Your task to perform on an android device: Add bose soundsport free to the cart on costco.com Image 0: 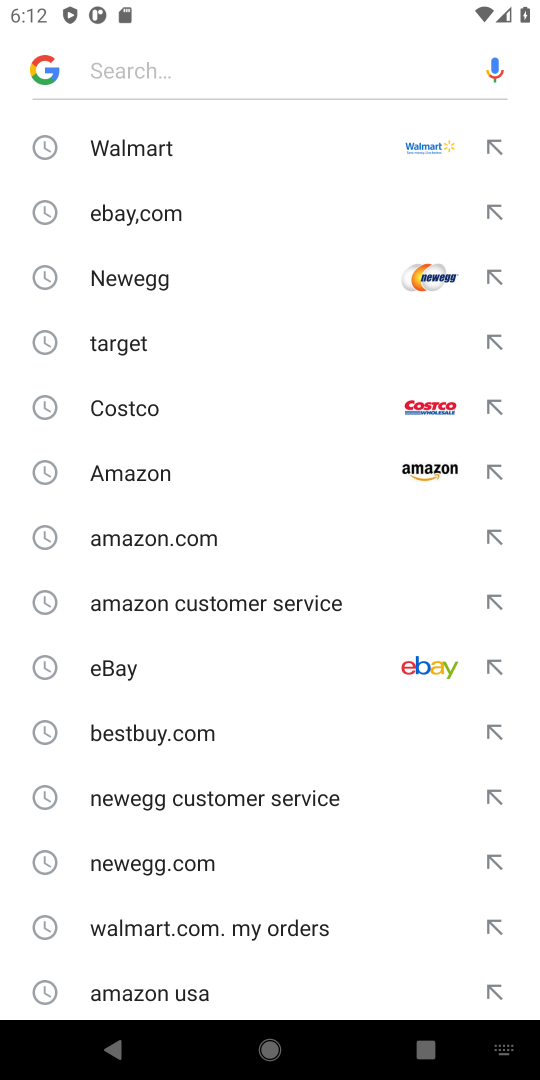
Step 0: press home button
Your task to perform on an android device: Add bose soundsport free to the cart on costco.com Image 1: 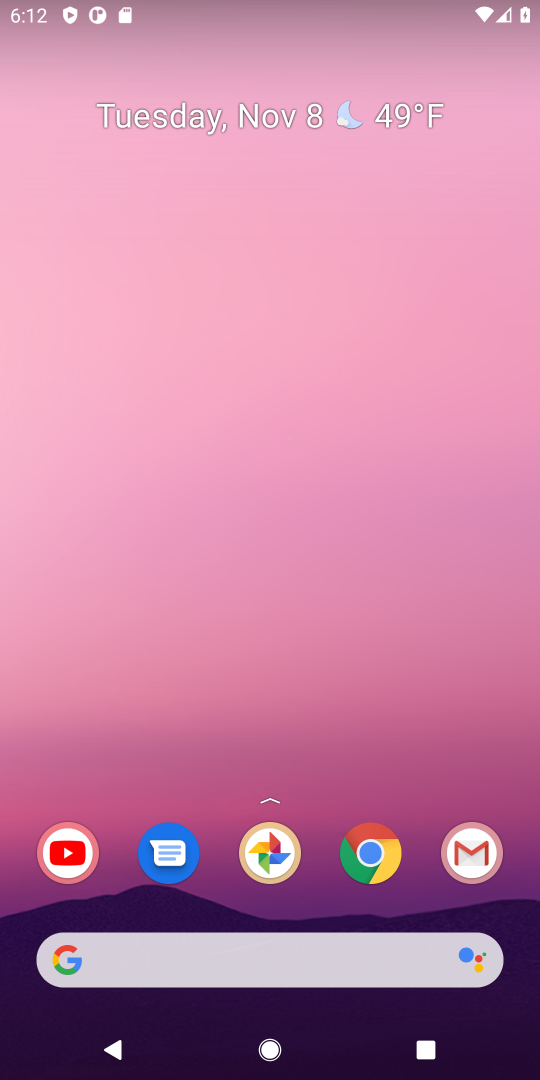
Step 1: click (373, 851)
Your task to perform on an android device: Add bose soundsport free to the cart on costco.com Image 2: 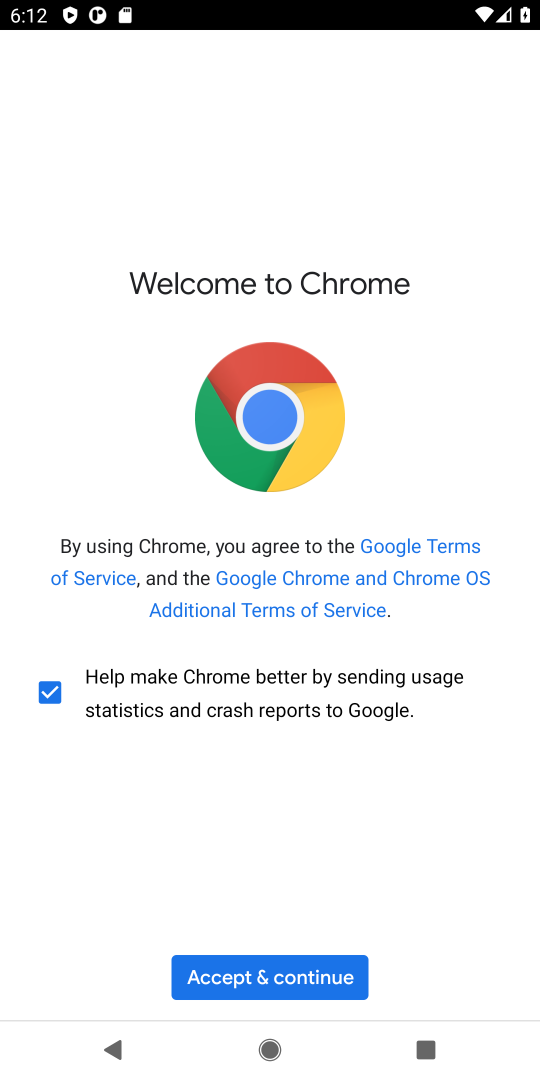
Step 2: click (273, 986)
Your task to perform on an android device: Add bose soundsport free to the cart on costco.com Image 3: 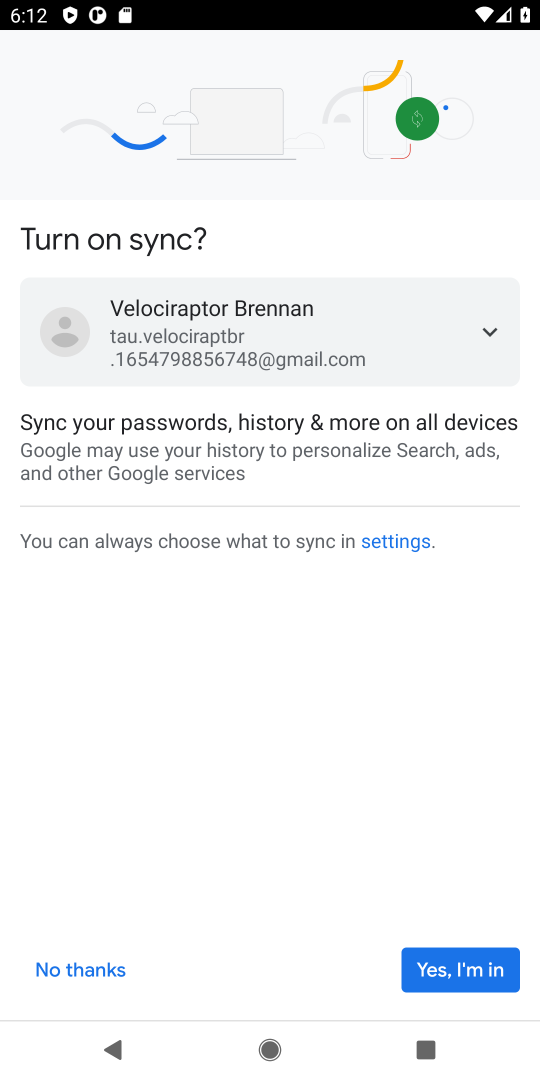
Step 3: click (461, 970)
Your task to perform on an android device: Add bose soundsport free to the cart on costco.com Image 4: 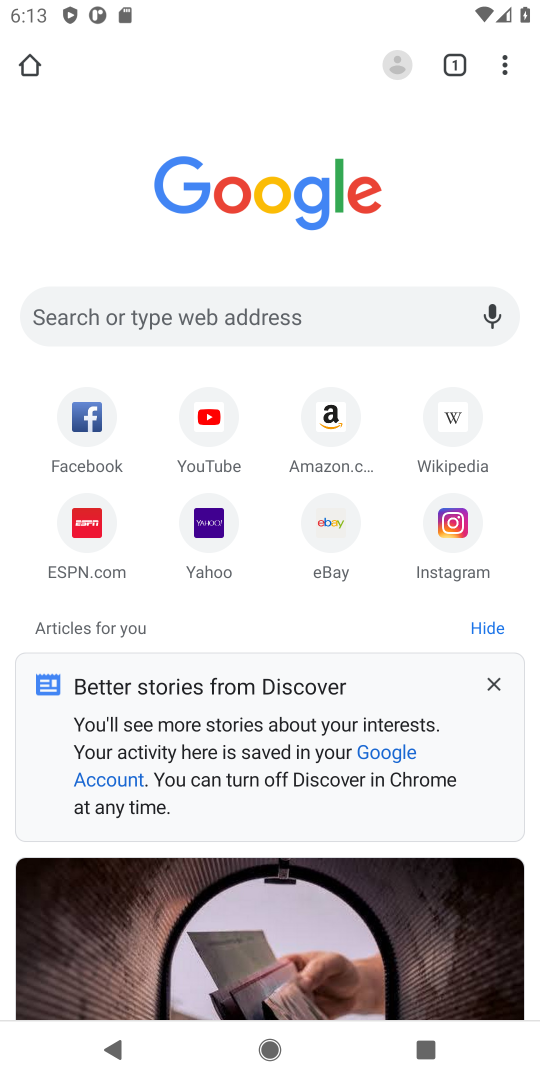
Step 4: click (369, 313)
Your task to perform on an android device: Add bose soundsport free to the cart on costco.com Image 5: 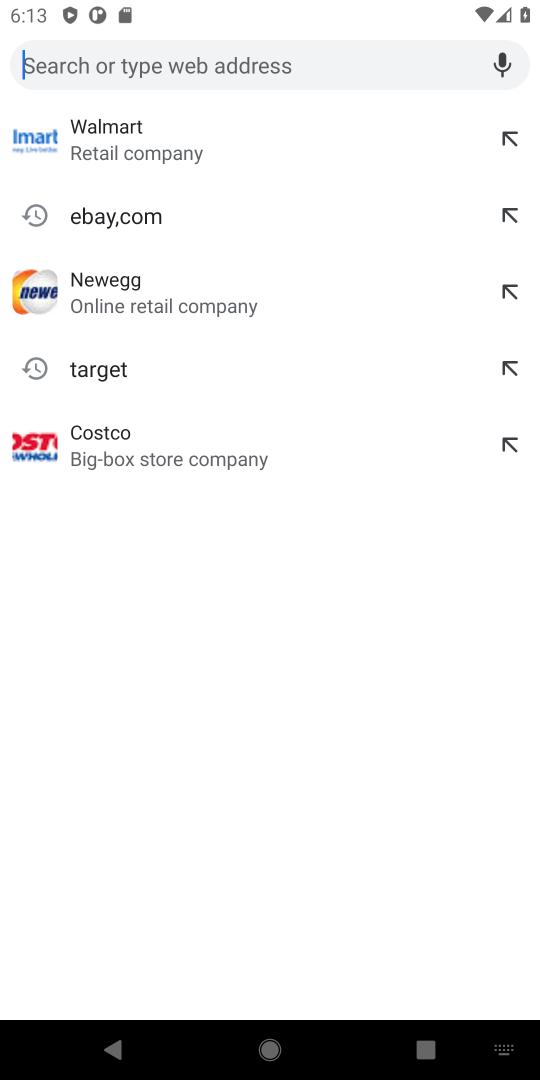
Step 5: type "costco.com"
Your task to perform on an android device: Add bose soundsport free to the cart on costco.com Image 6: 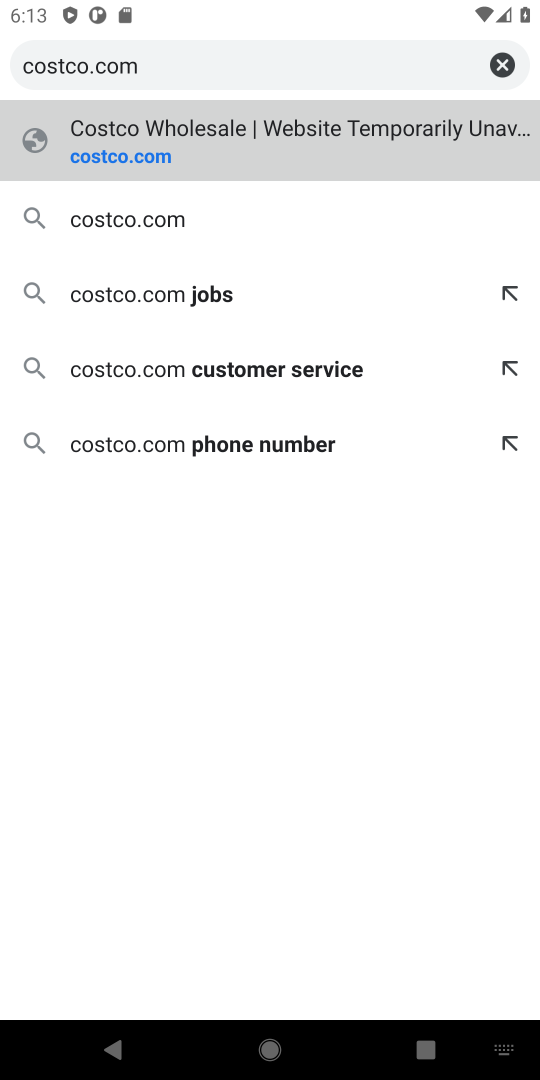
Step 6: click (174, 220)
Your task to perform on an android device: Add bose soundsport free to the cart on costco.com Image 7: 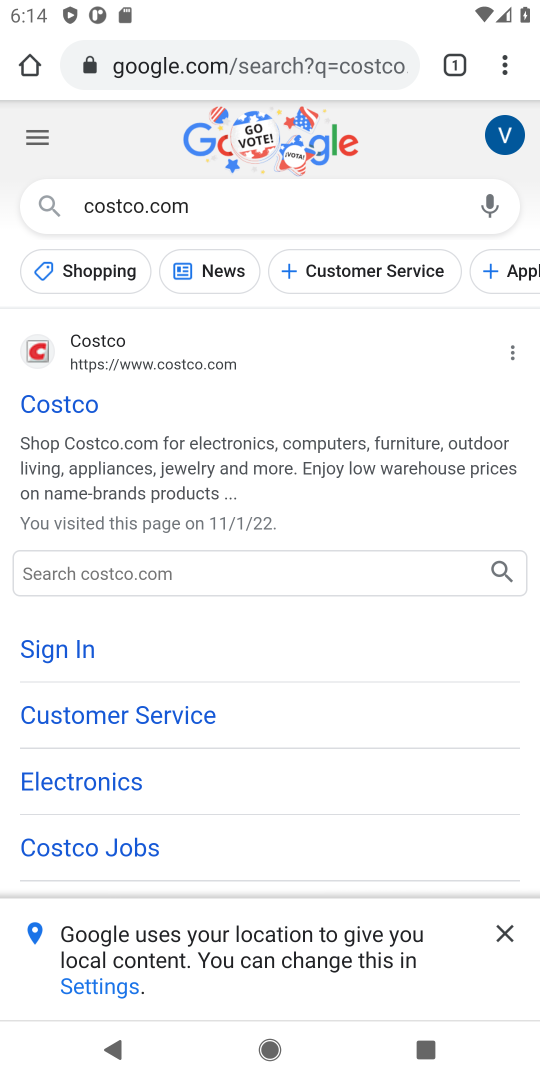
Step 7: click (115, 365)
Your task to perform on an android device: Add bose soundsport free to the cart on costco.com Image 8: 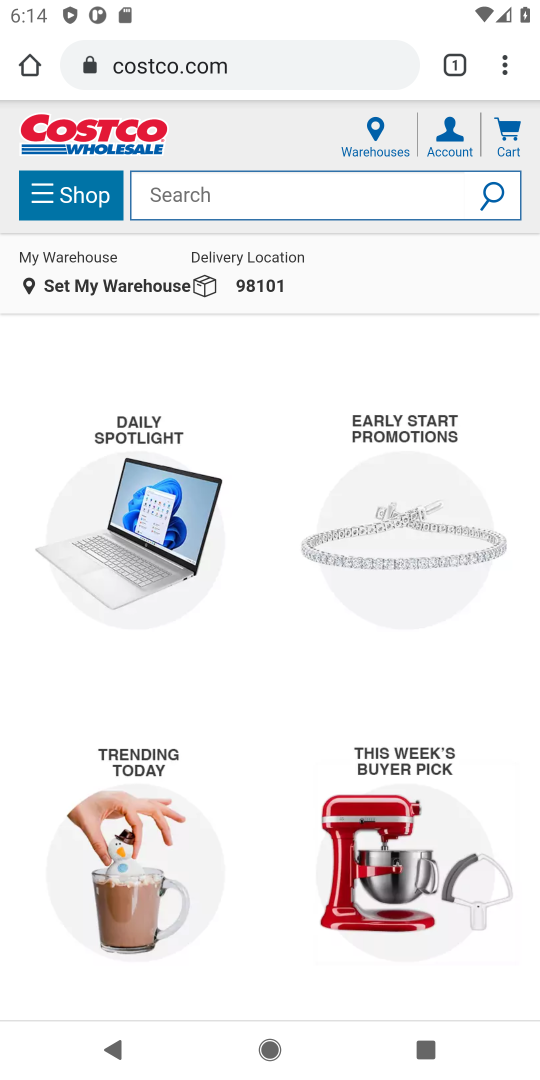
Step 8: click (264, 196)
Your task to perform on an android device: Add bose soundsport free to the cart on costco.com Image 9: 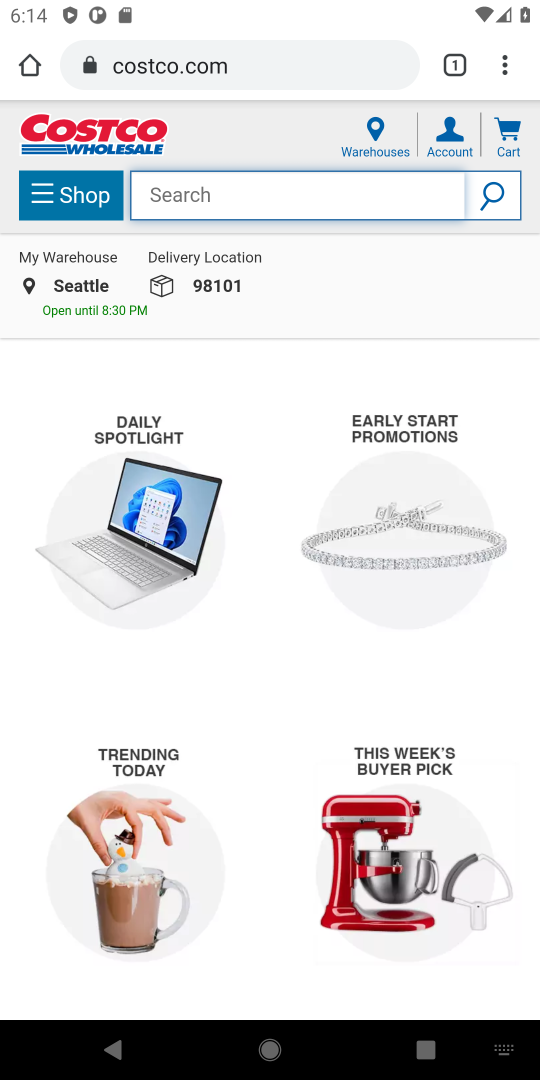
Step 9: type "bose soundsport free"
Your task to perform on an android device: Add bose soundsport free to the cart on costco.com Image 10: 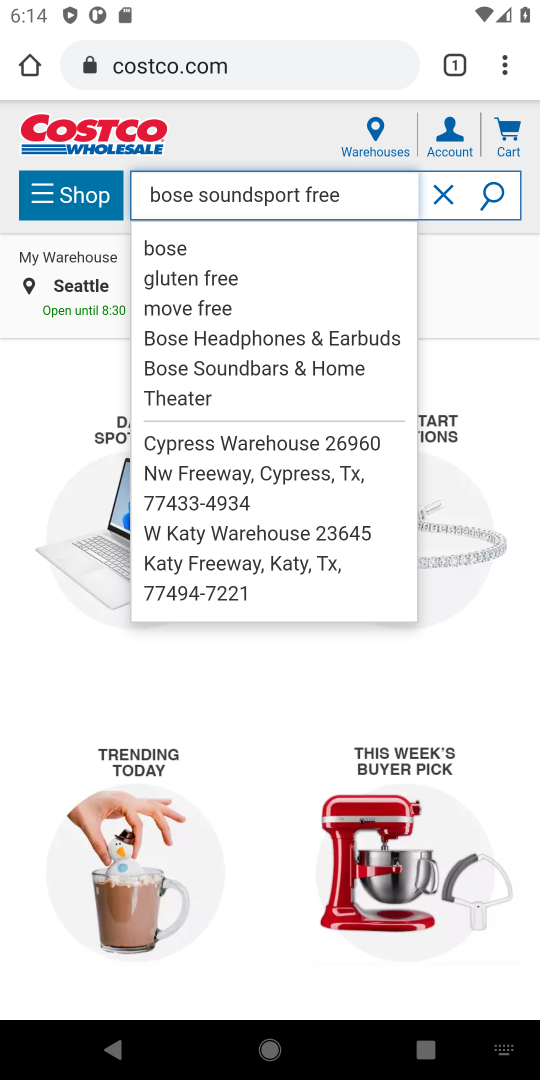
Step 10: click (496, 193)
Your task to perform on an android device: Add bose soundsport free to the cart on costco.com Image 11: 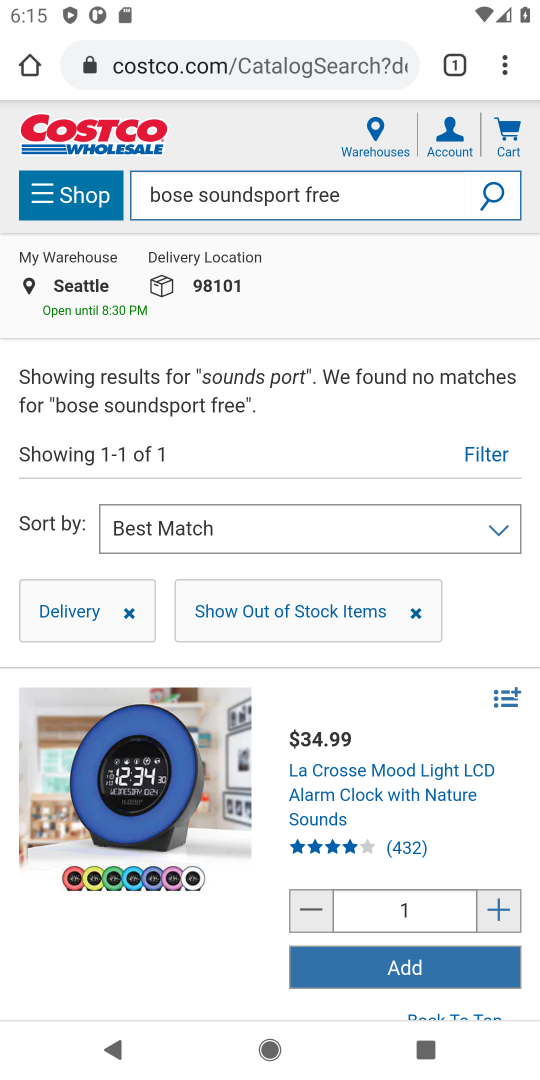
Step 11: task complete